Your task to perform on an android device: star an email in the gmail app Image 0: 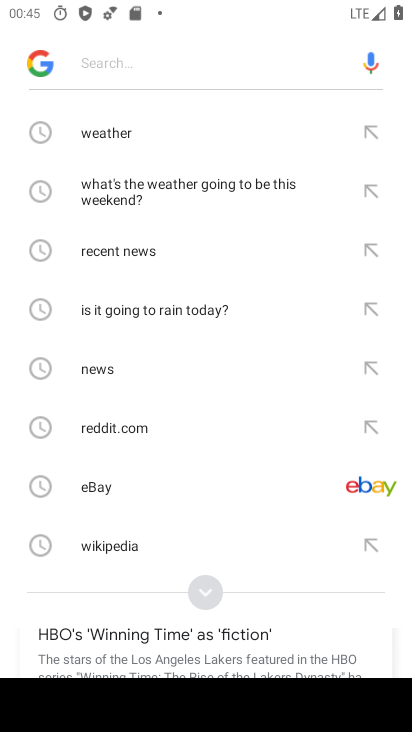
Step 0: press home button
Your task to perform on an android device: star an email in the gmail app Image 1: 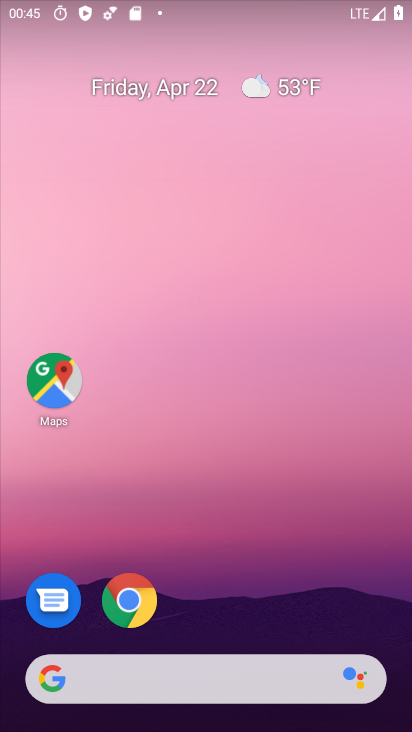
Step 1: drag from (186, 511) to (230, 81)
Your task to perform on an android device: star an email in the gmail app Image 2: 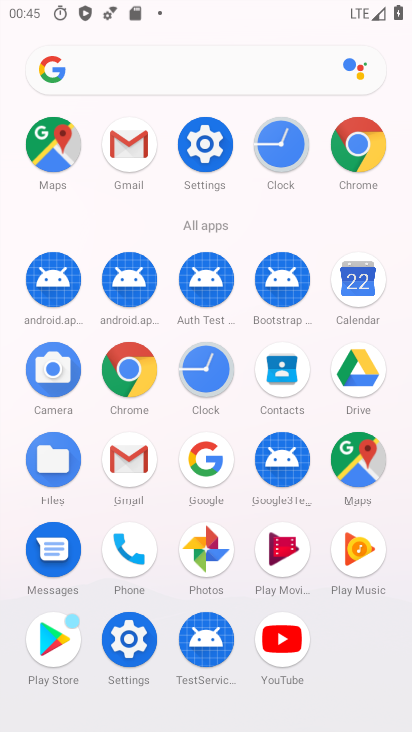
Step 2: click (127, 145)
Your task to perform on an android device: star an email in the gmail app Image 3: 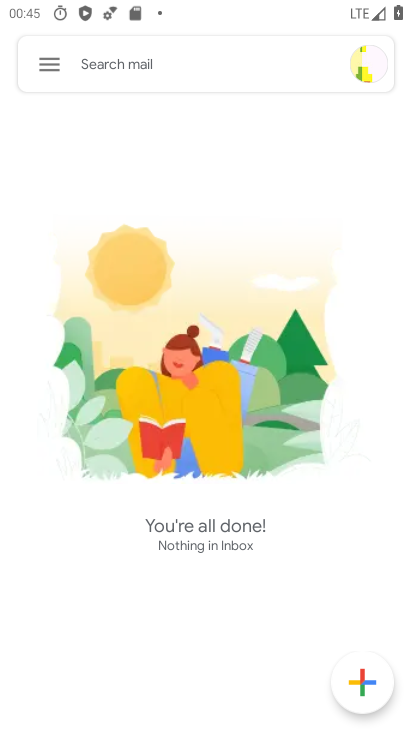
Step 3: task complete